Your task to perform on an android device: turn off location Image 0: 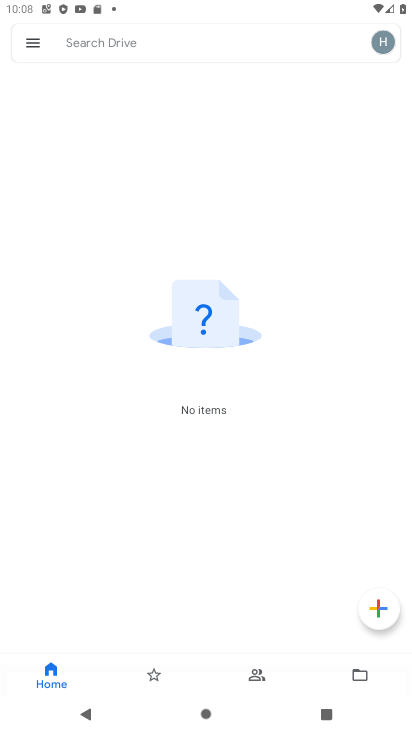
Step 0: press home button
Your task to perform on an android device: turn off location Image 1: 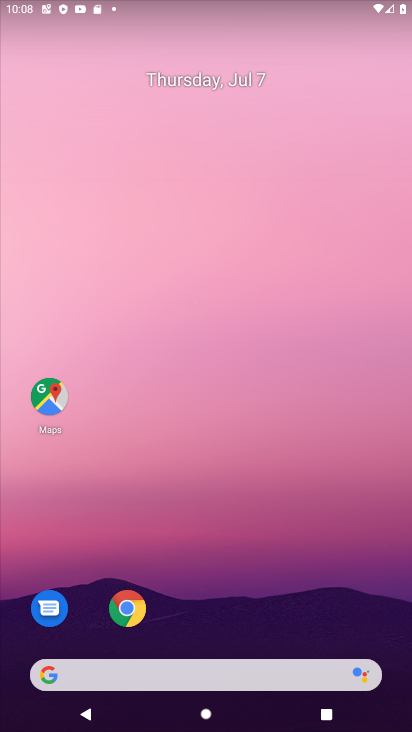
Step 1: drag from (214, 625) to (268, 123)
Your task to perform on an android device: turn off location Image 2: 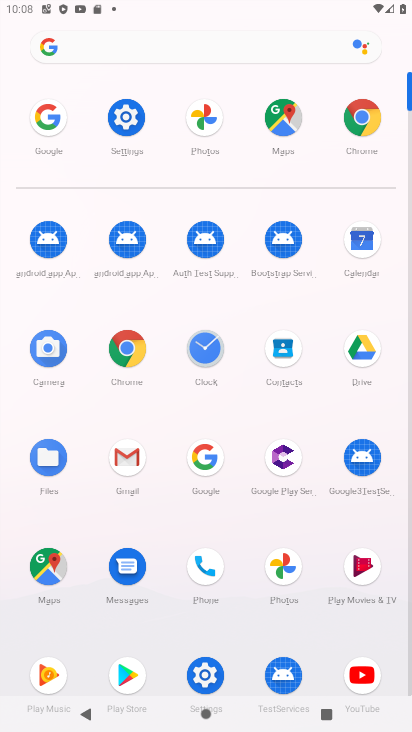
Step 2: click (128, 112)
Your task to perform on an android device: turn off location Image 3: 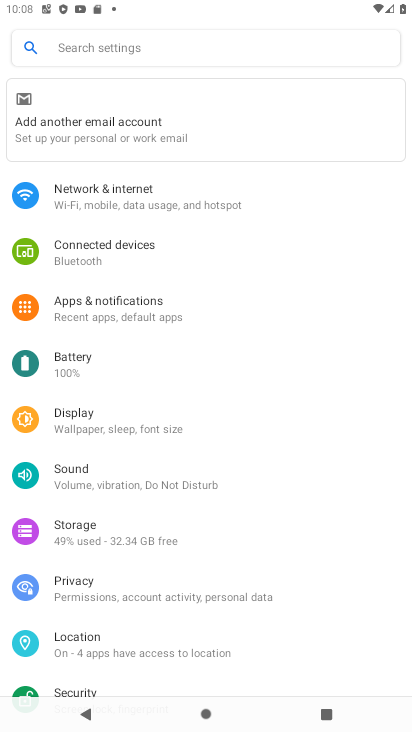
Step 3: click (106, 644)
Your task to perform on an android device: turn off location Image 4: 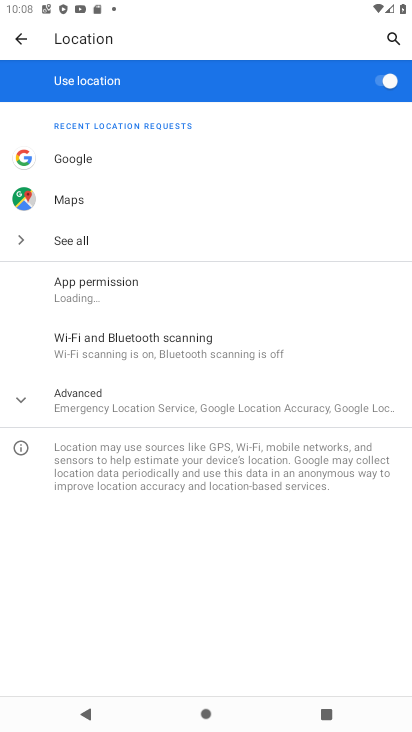
Step 4: click (377, 86)
Your task to perform on an android device: turn off location Image 5: 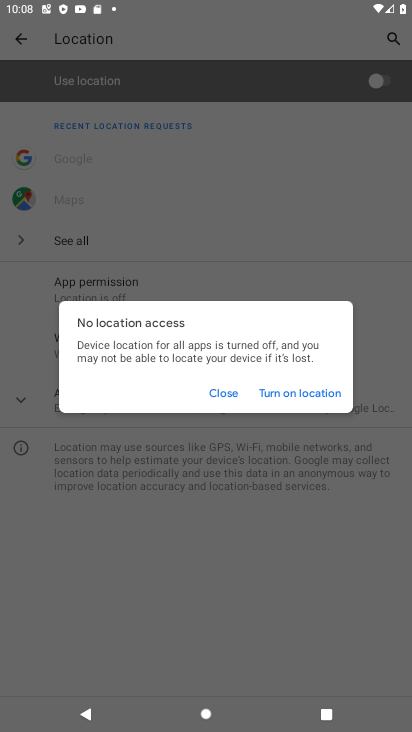
Step 5: click (218, 388)
Your task to perform on an android device: turn off location Image 6: 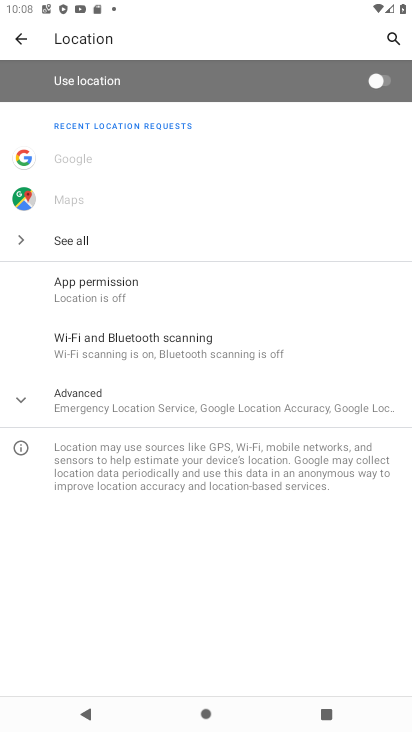
Step 6: task complete